Your task to perform on an android device: Open privacy settings Image 0: 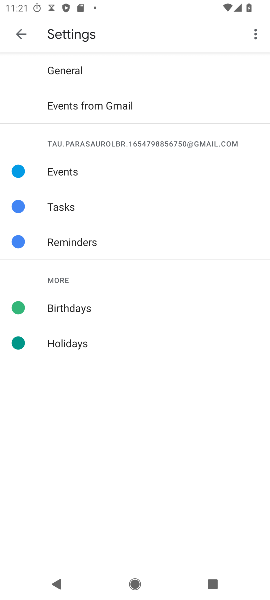
Step 0: press home button
Your task to perform on an android device: Open privacy settings Image 1: 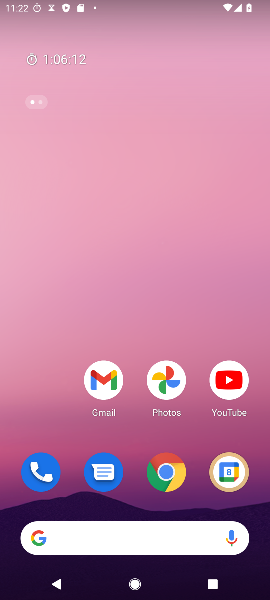
Step 1: drag from (185, 343) to (137, 11)
Your task to perform on an android device: Open privacy settings Image 2: 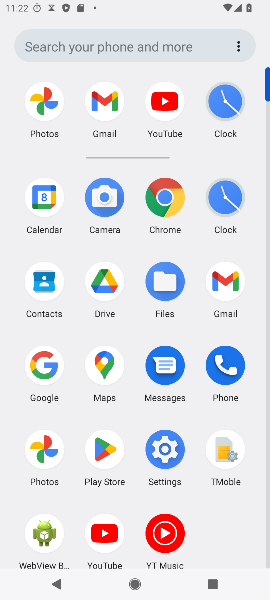
Step 2: click (175, 444)
Your task to perform on an android device: Open privacy settings Image 3: 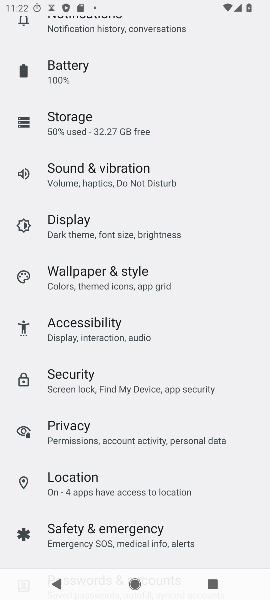
Step 3: click (135, 430)
Your task to perform on an android device: Open privacy settings Image 4: 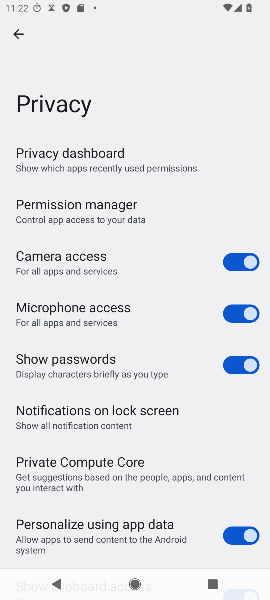
Step 4: task complete